Your task to perform on an android device: turn vacation reply on in the gmail app Image 0: 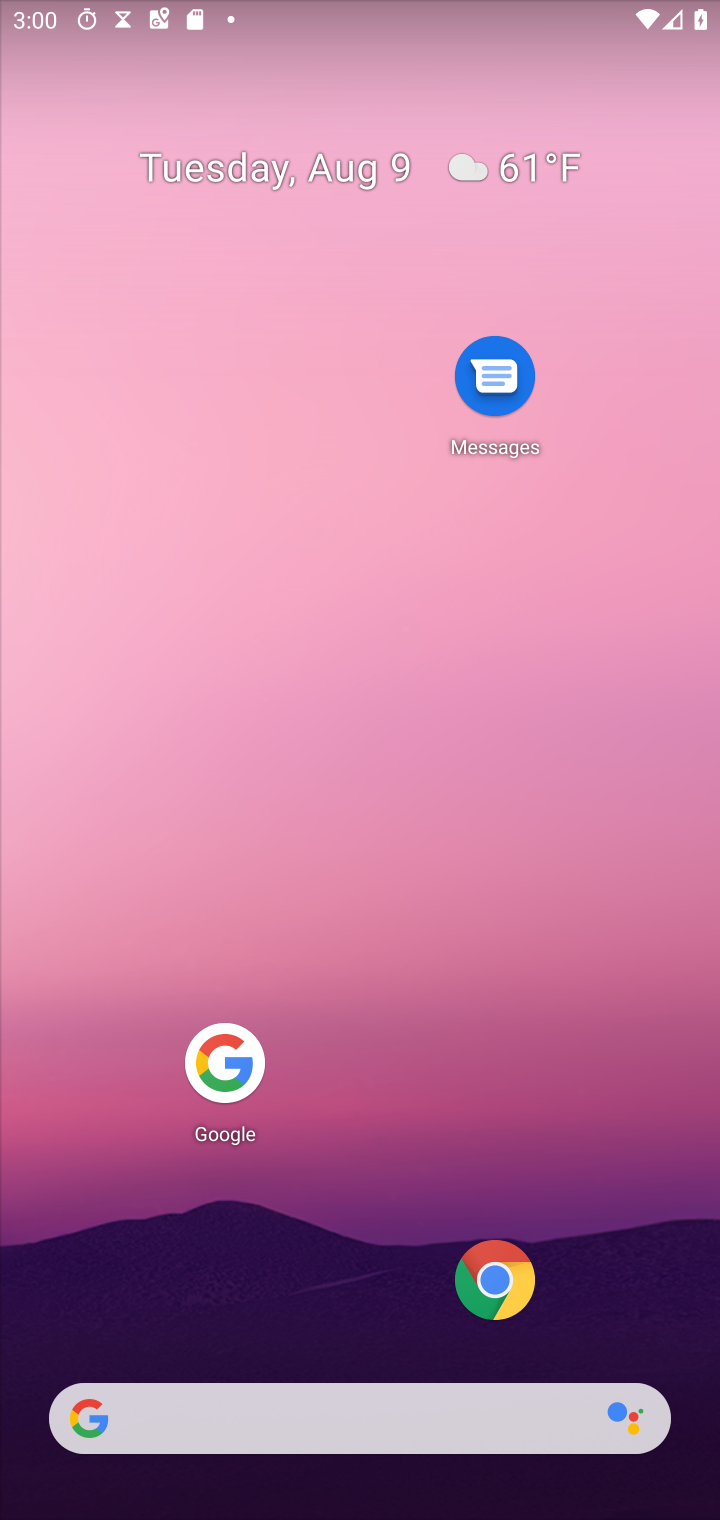
Step 0: drag from (281, 1404) to (451, 653)
Your task to perform on an android device: turn vacation reply on in the gmail app Image 1: 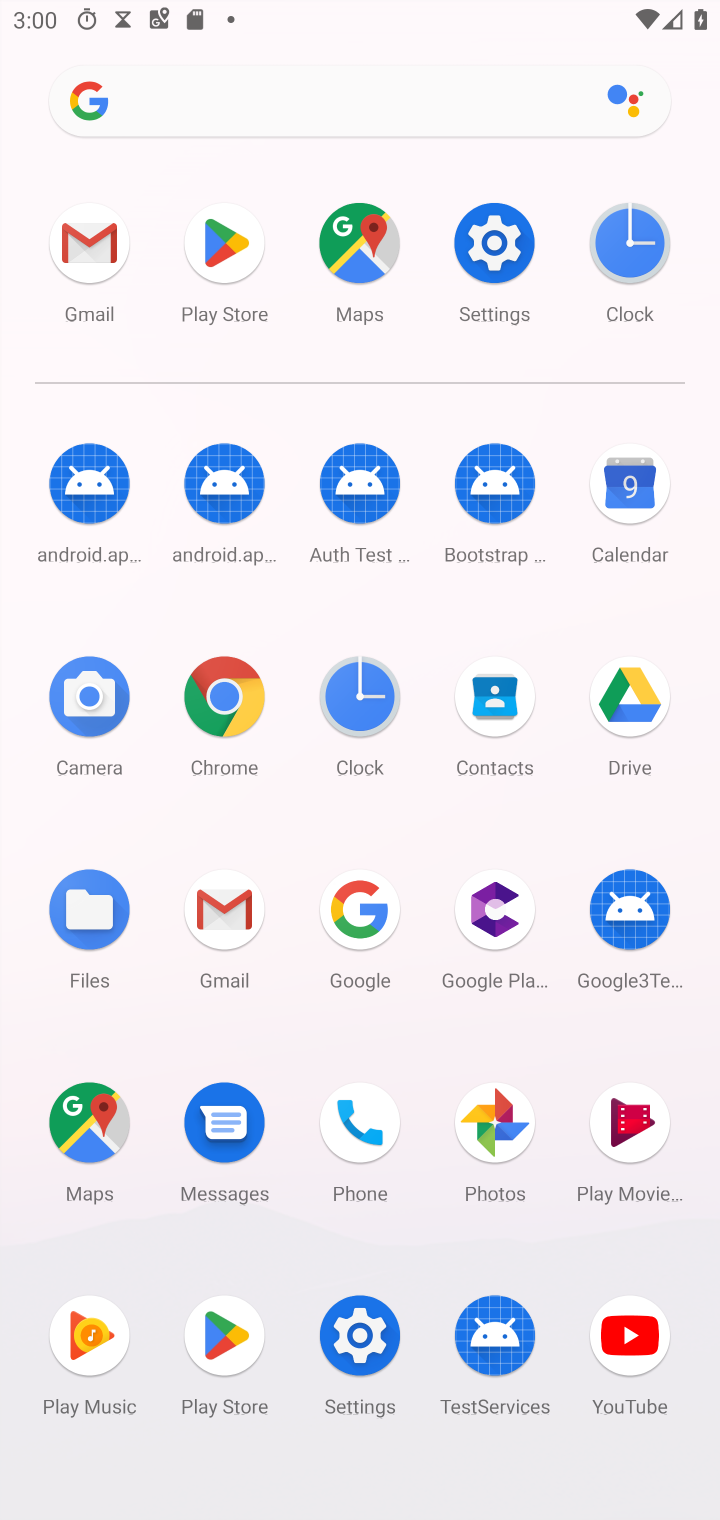
Step 1: click (227, 910)
Your task to perform on an android device: turn vacation reply on in the gmail app Image 2: 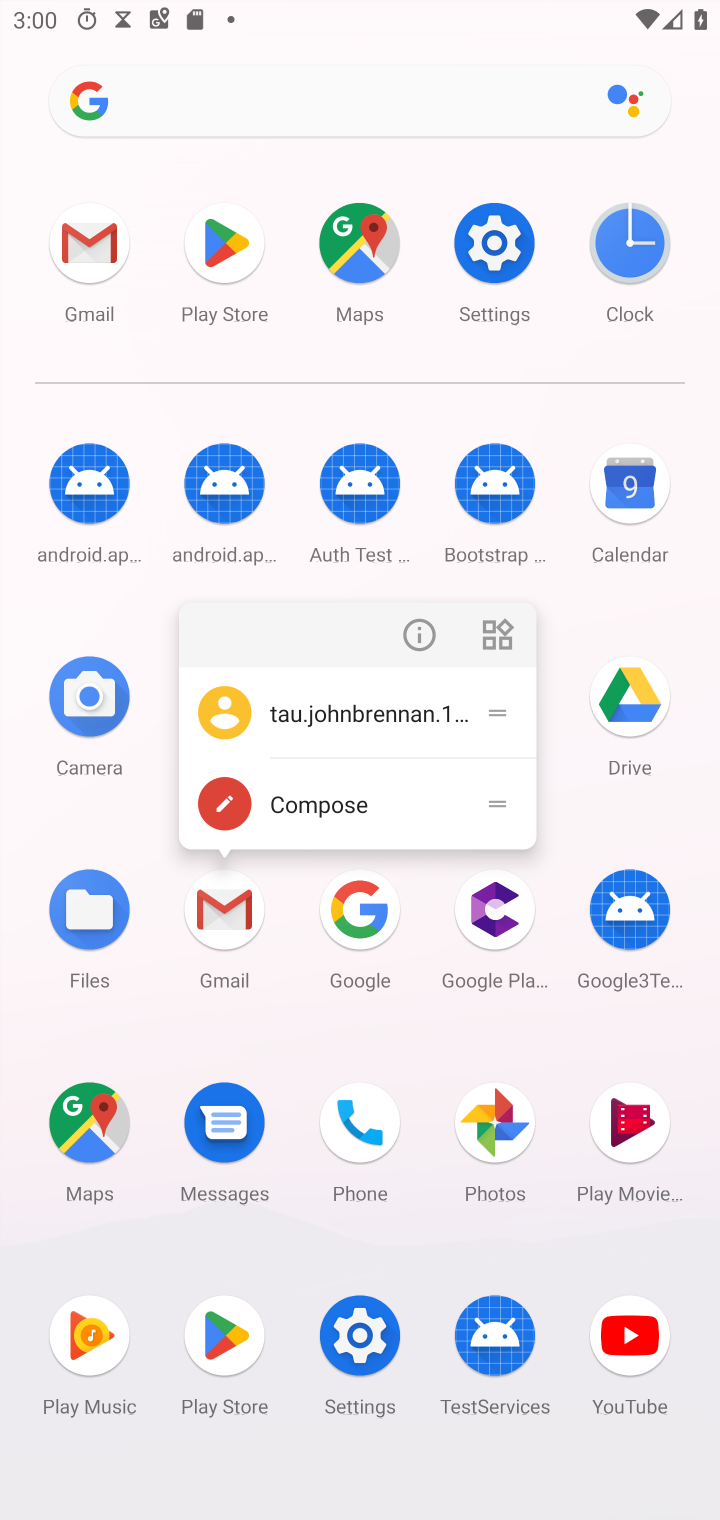
Step 2: click (227, 909)
Your task to perform on an android device: turn vacation reply on in the gmail app Image 3: 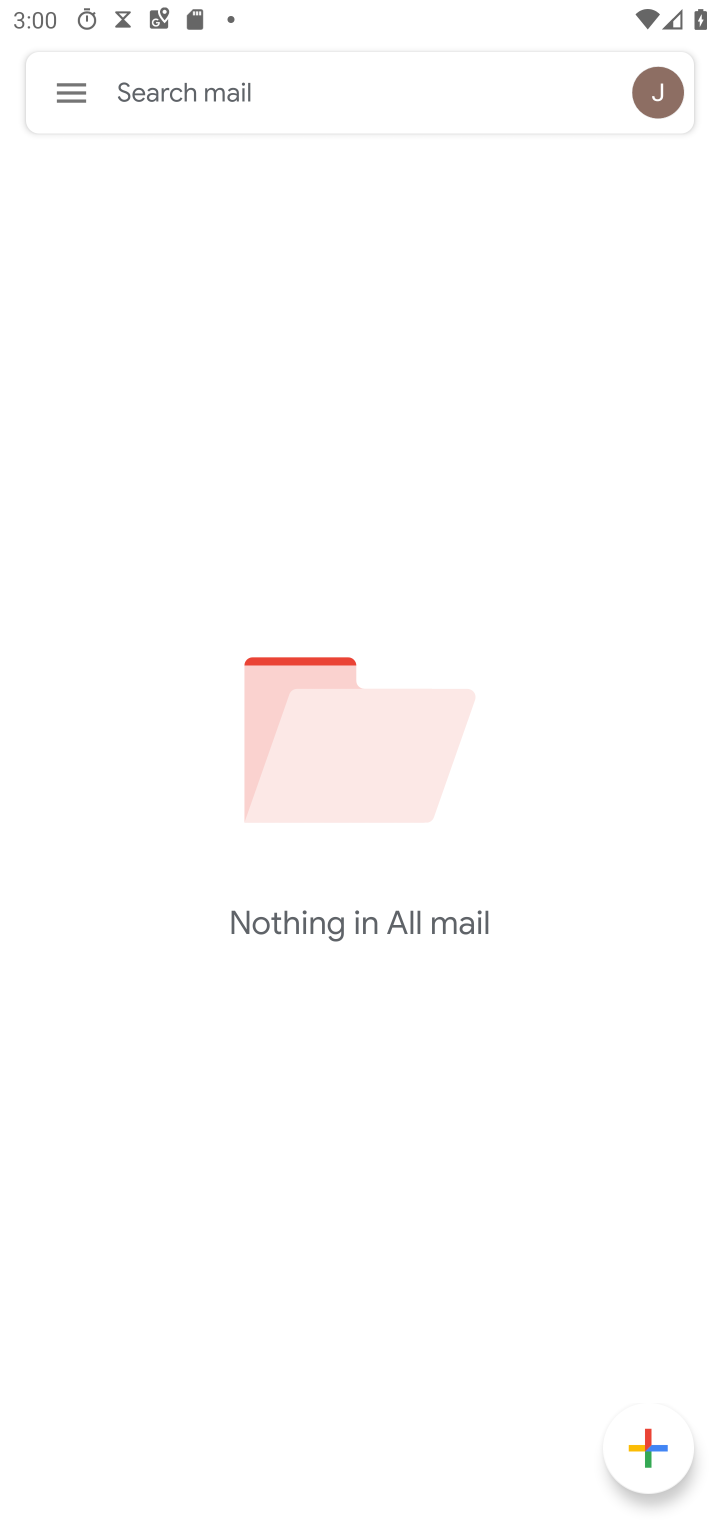
Step 3: click (72, 81)
Your task to perform on an android device: turn vacation reply on in the gmail app Image 4: 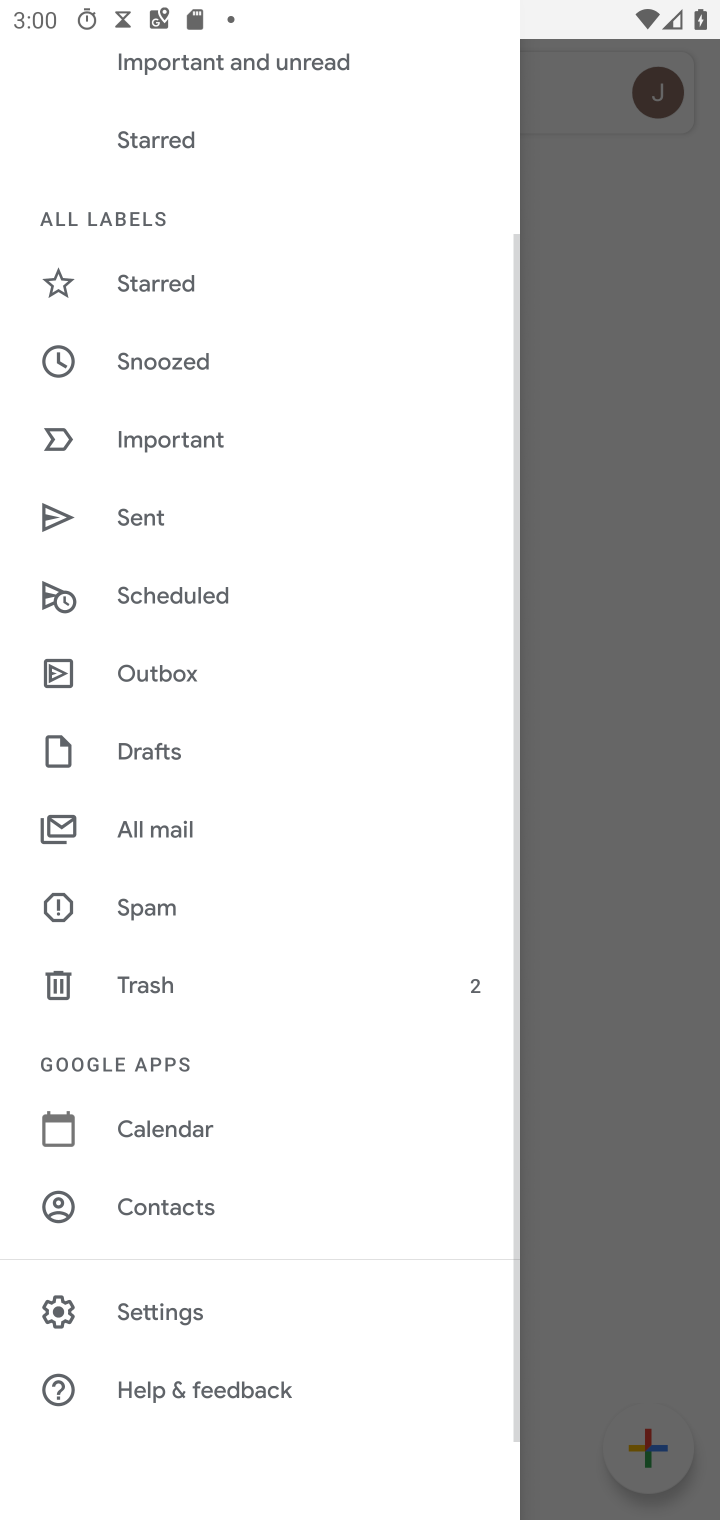
Step 4: click (177, 1311)
Your task to perform on an android device: turn vacation reply on in the gmail app Image 5: 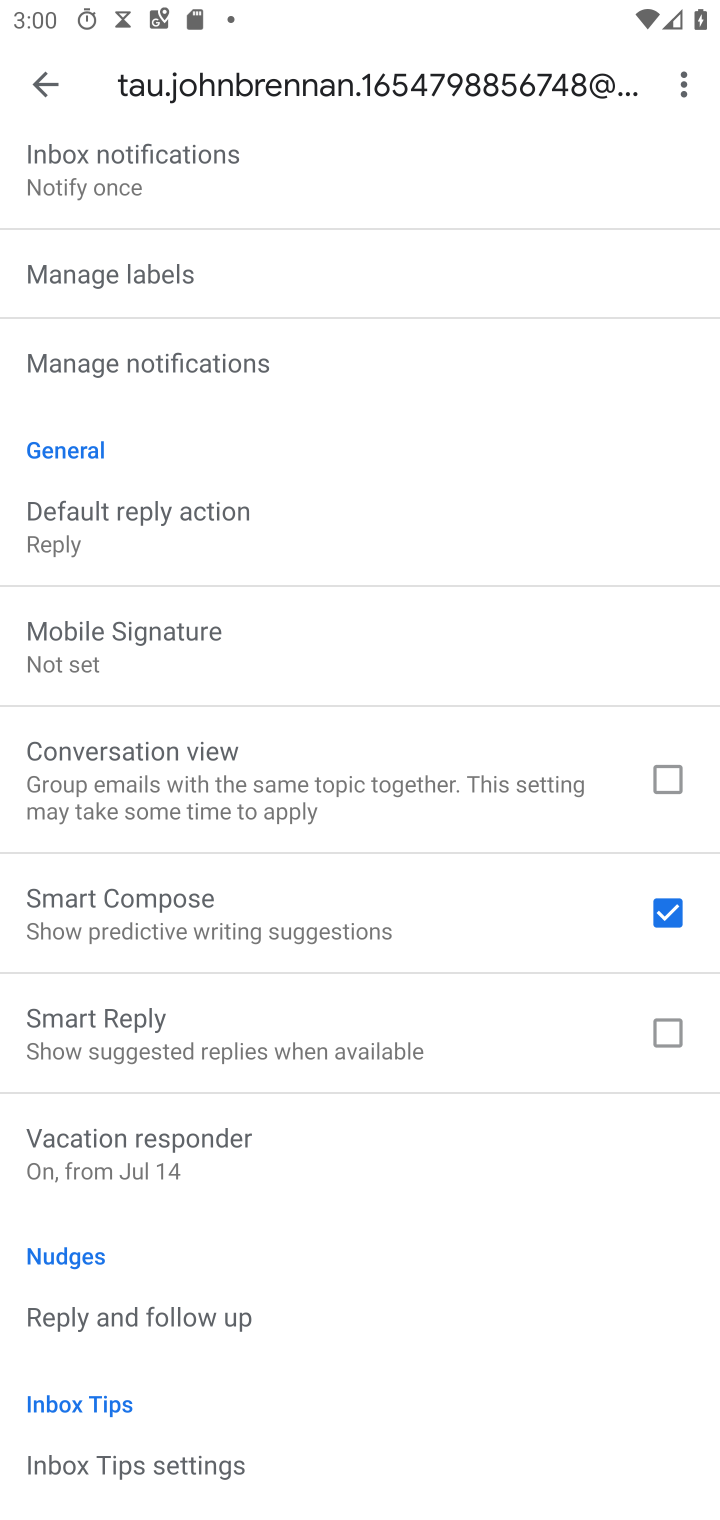
Step 5: click (144, 1132)
Your task to perform on an android device: turn vacation reply on in the gmail app Image 6: 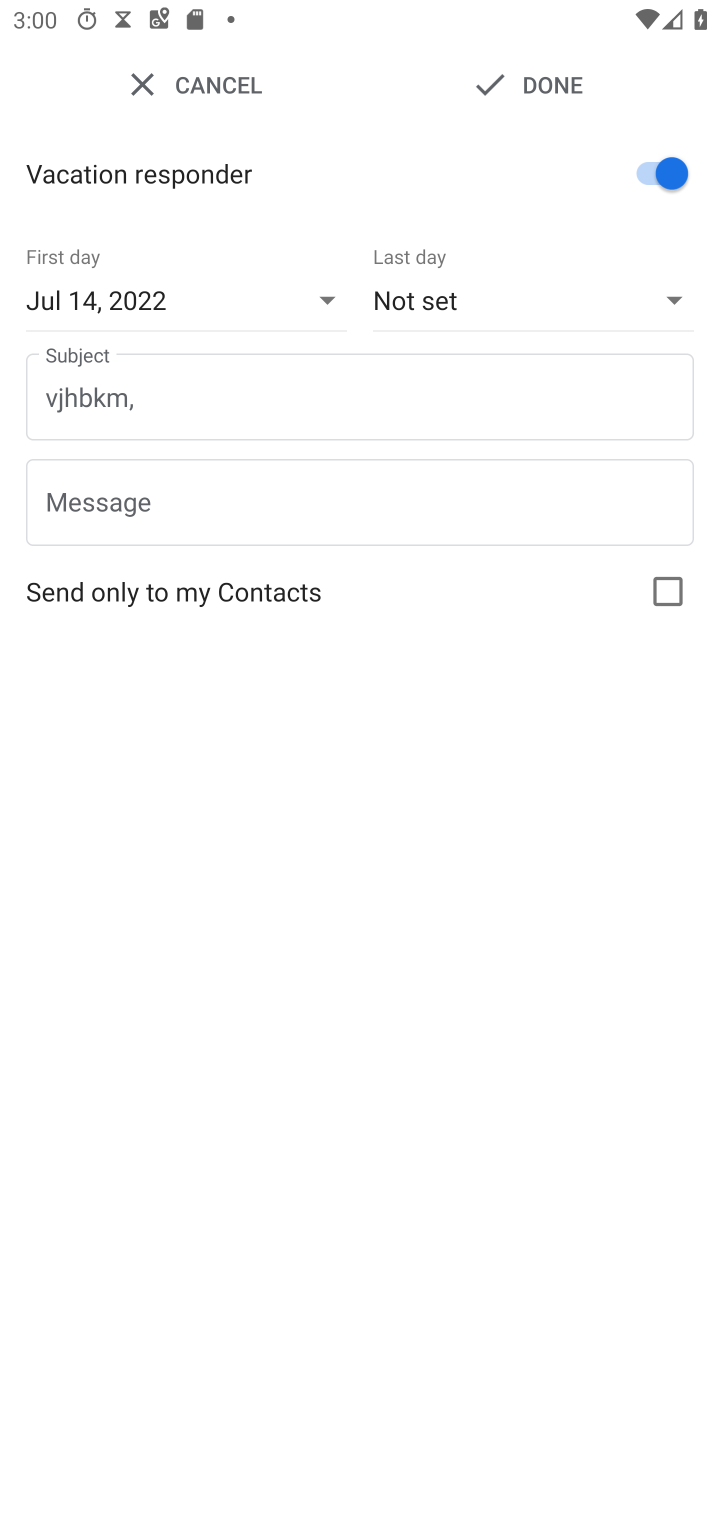
Step 6: task complete